Your task to perform on an android device: Do I have any events this weekend? Image 0: 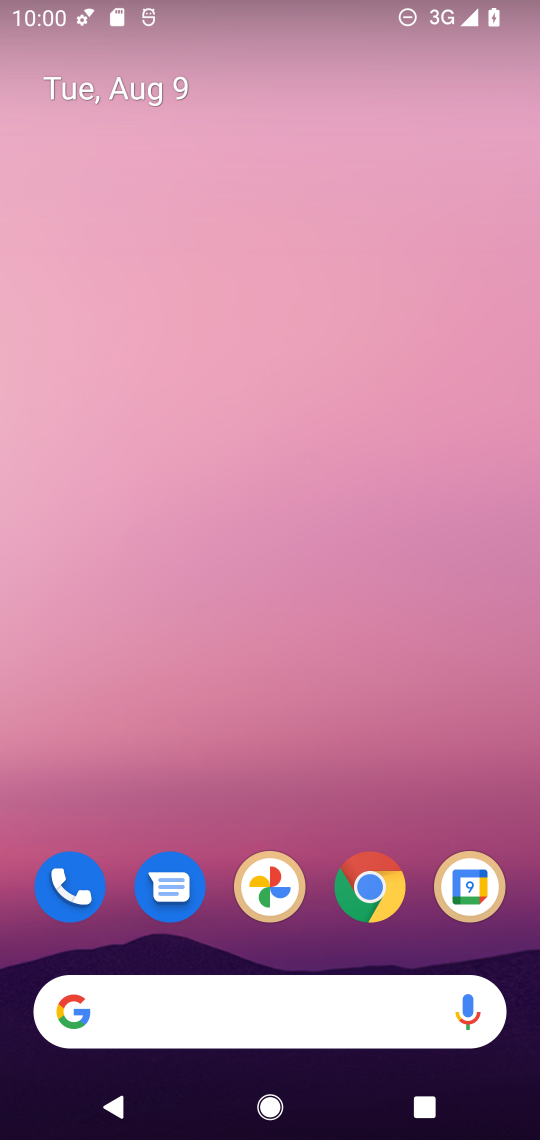
Step 0: drag from (254, 803) to (219, 164)
Your task to perform on an android device: Do I have any events this weekend? Image 1: 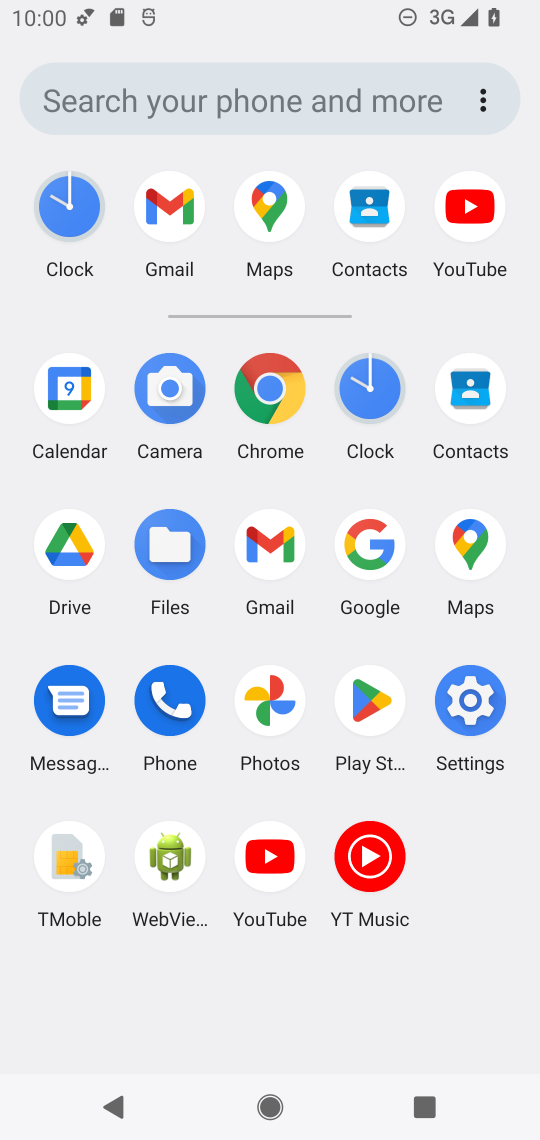
Step 1: click (90, 414)
Your task to perform on an android device: Do I have any events this weekend? Image 2: 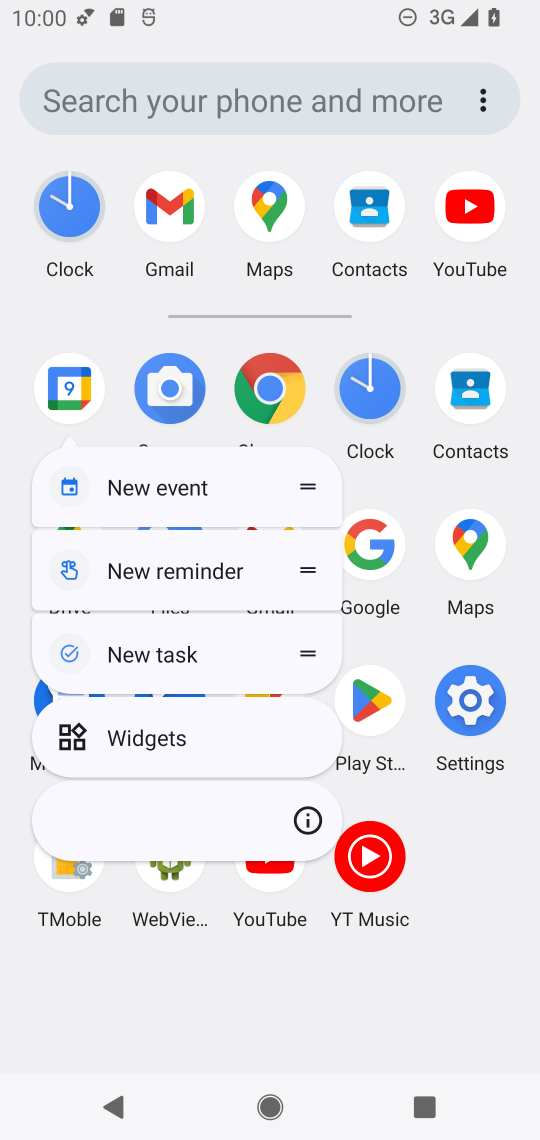
Step 2: click (68, 391)
Your task to perform on an android device: Do I have any events this weekend? Image 3: 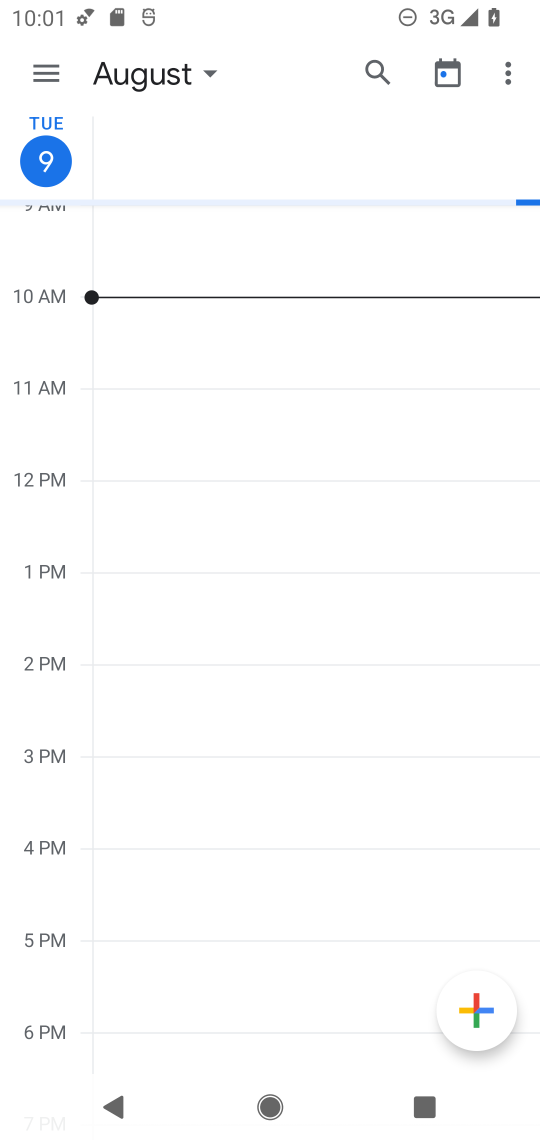
Step 3: click (193, 81)
Your task to perform on an android device: Do I have any events this weekend? Image 4: 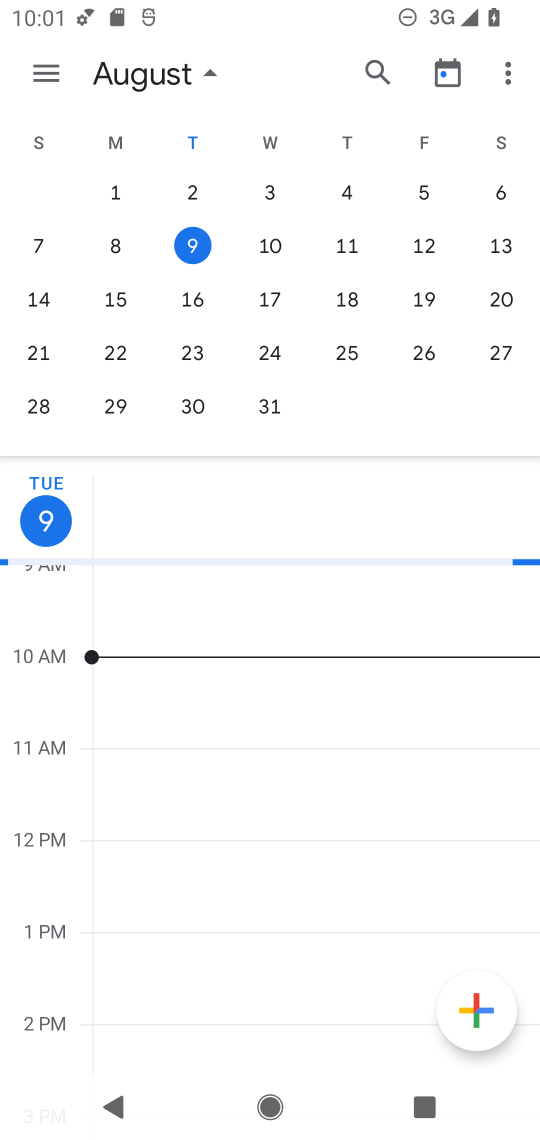
Step 4: click (506, 256)
Your task to perform on an android device: Do I have any events this weekend? Image 5: 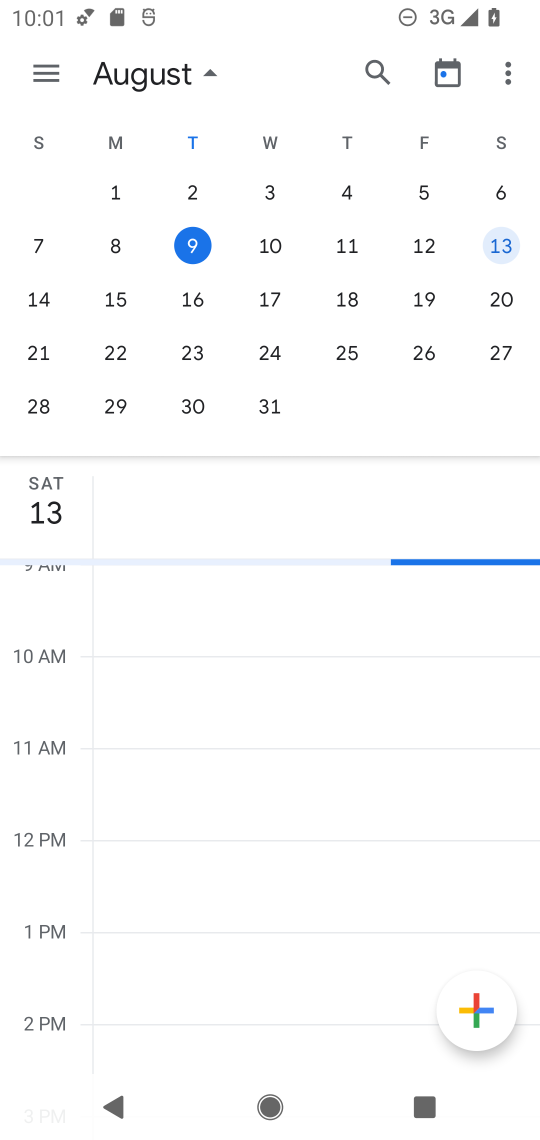
Step 5: click (506, 256)
Your task to perform on an android device: Do I have any events this weekend? Image 6: 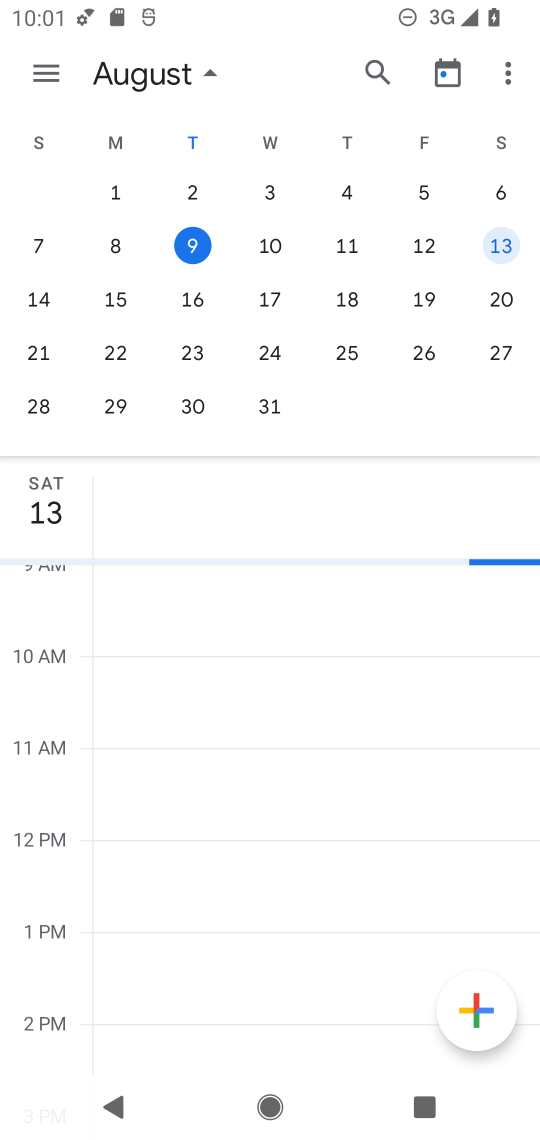
Step 6: task complete